Your task to perform on an android device: change timer sound Image 0: 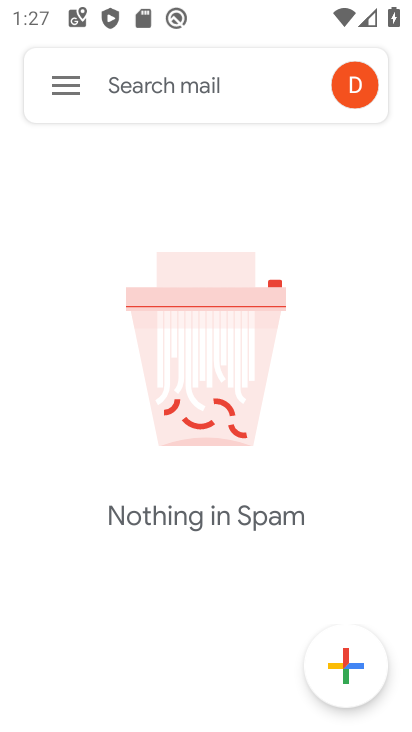
Step 0: press back button
Your task to perform on an android device: change timer sound Image 1: 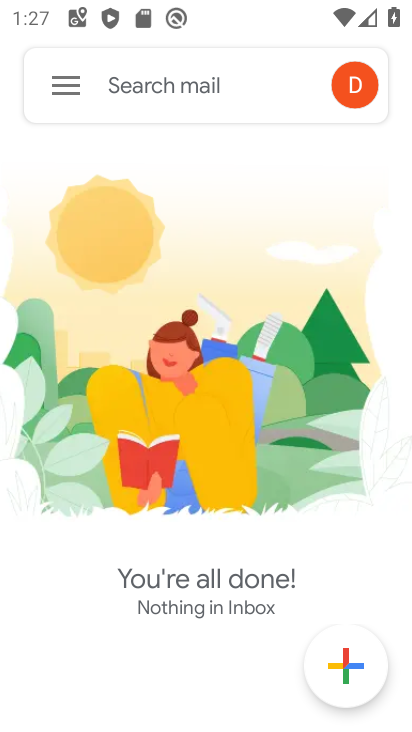
Step 1: drag from (378, 613) to (45, 102)
Your task to perform on an android device: change timer sound Image 2: 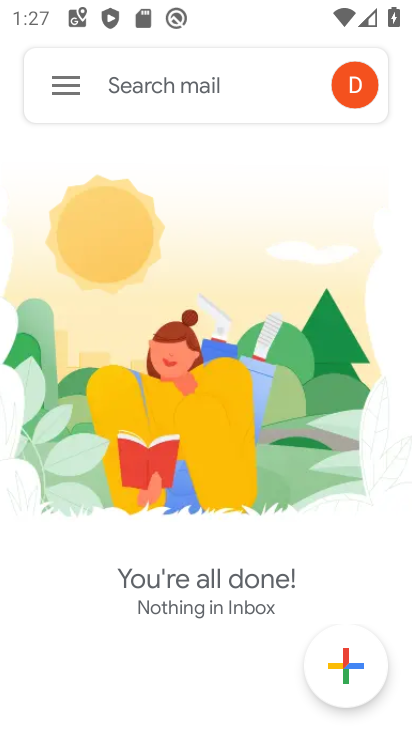
Step 2: click (61, 90)
Your task to perform on an android device: change timer sound Image 3: 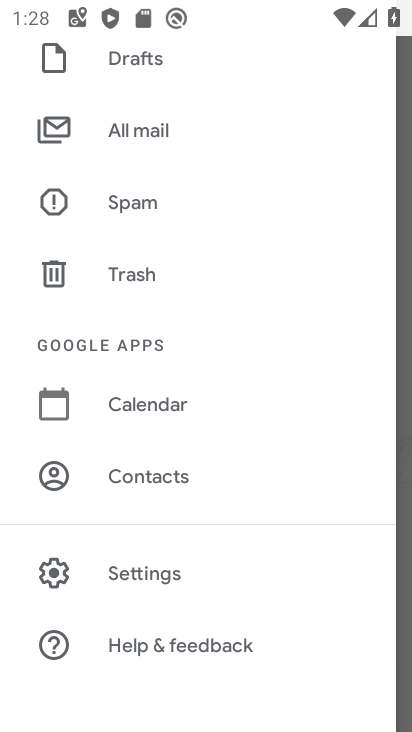
Step 3: press back button
Your task to perform on an android device: change timer sound Image 4: 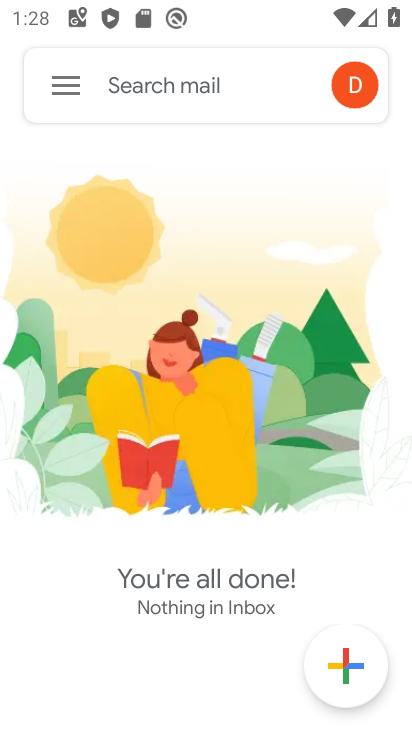
Step 4: press home button
Your task to perform on an android device: change timer sound Image 5: 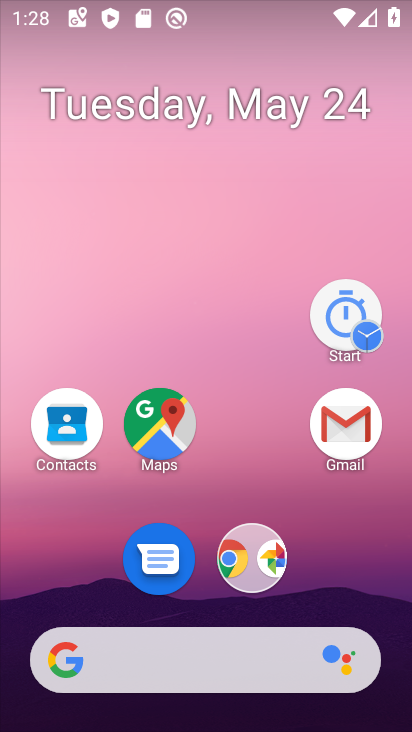
Step 5: drag from (277, 708) to (147, 109)
Your task to perform on an android device: change timer sound Image 6: 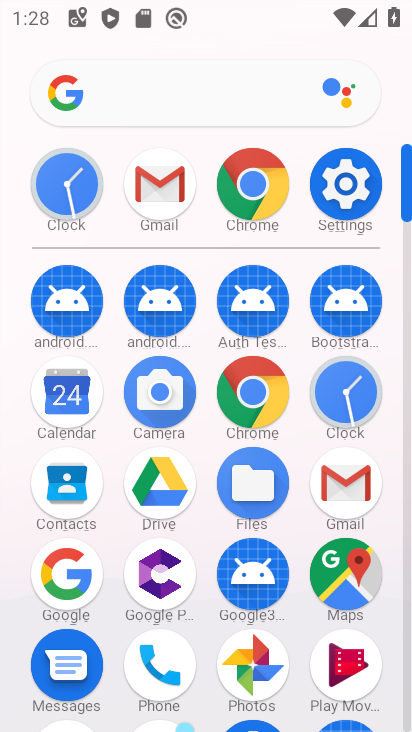
Step 6: click (354, 390)
Your task to perform on an android device: change timer sound Image 7: 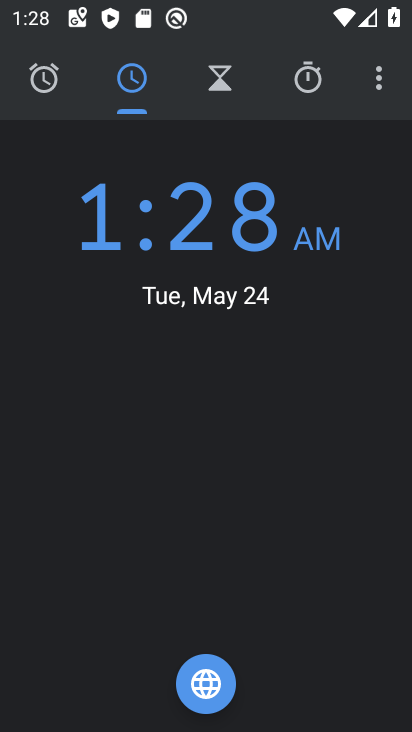
Step 7: click (379, 74)
Your task to perform on an android device: change timer sound Image 8: 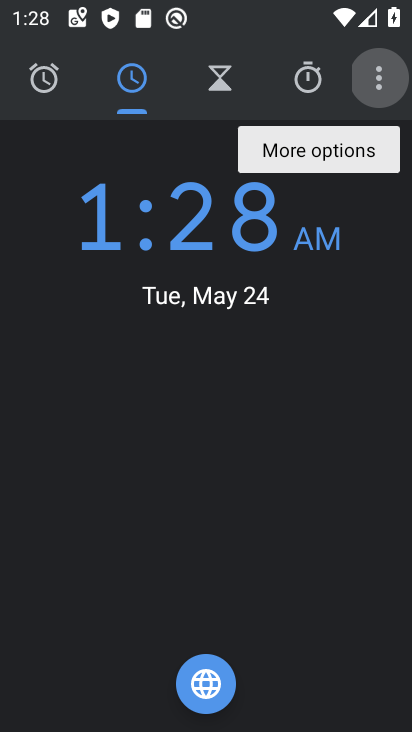
Step 8: click (375, 84)
Your task to perform on an android device: change timer sound Image 9: 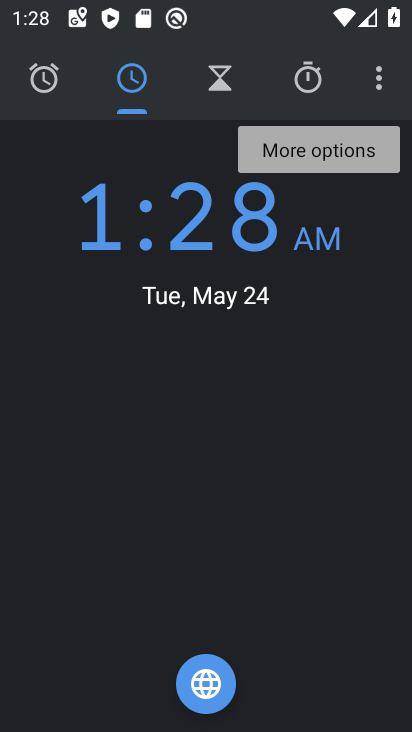
Step 9: click (376, 85)
Your task to perform on an android device: change timer sound Image 10: 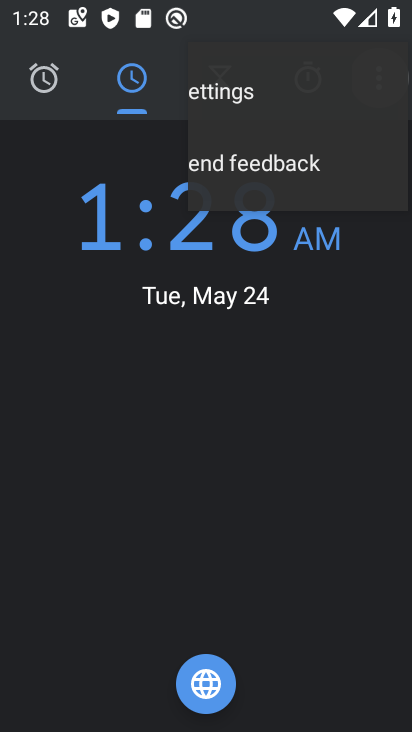
Step 10: click (376, 85)
Your task to perform on an android device: change timer sound Image 11: 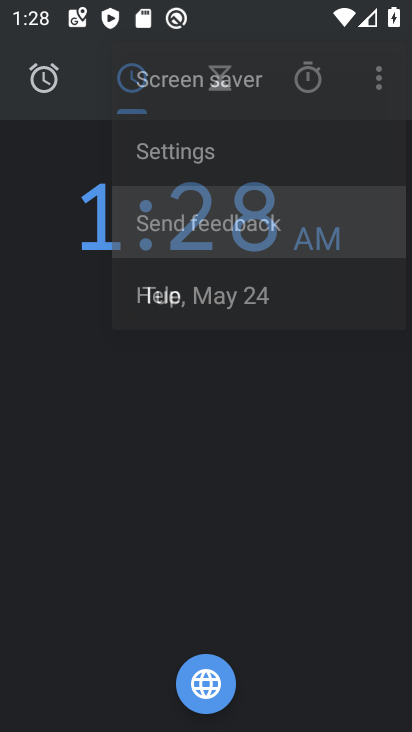
Step 11: click (376, 85)
Your task to perform on an android device: change timer sound Image 12: 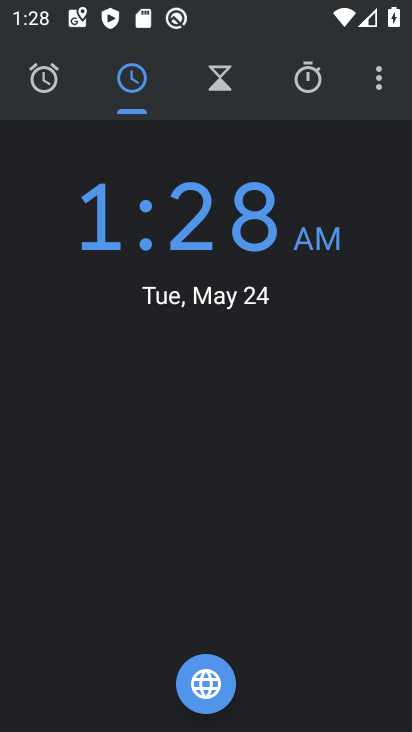
Step 12: click (377, 84)
Your task to perform on an android device: change timer sound Image 13: 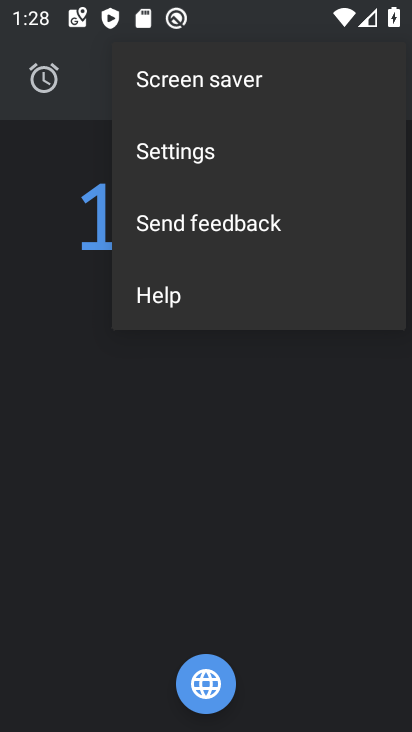
Step 13: click (181, 147)
Your task to perform on an android device: change timer sound Image 14: 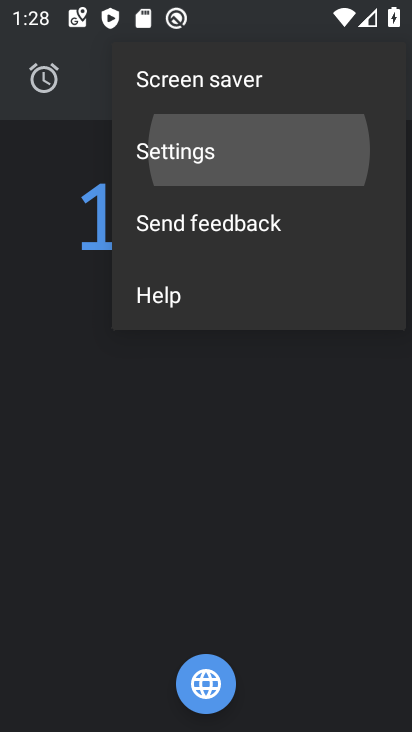
Step 14: click (186, 144)
Your task to perform on an android device: change timer sound Image 15: 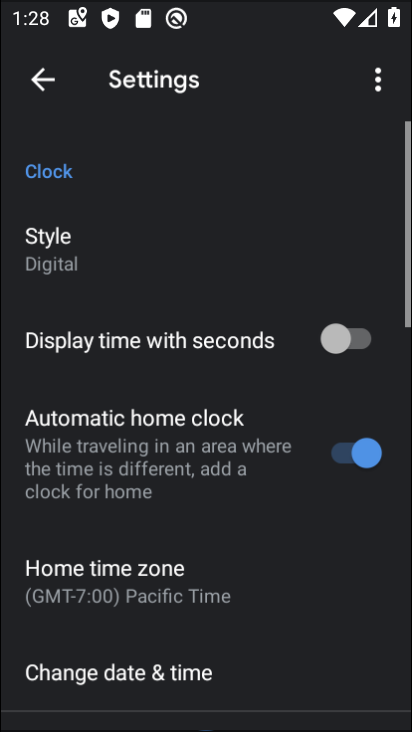
Step 15: click (188, 143)
Your task to perform on an android device: change timer sound Image 16: 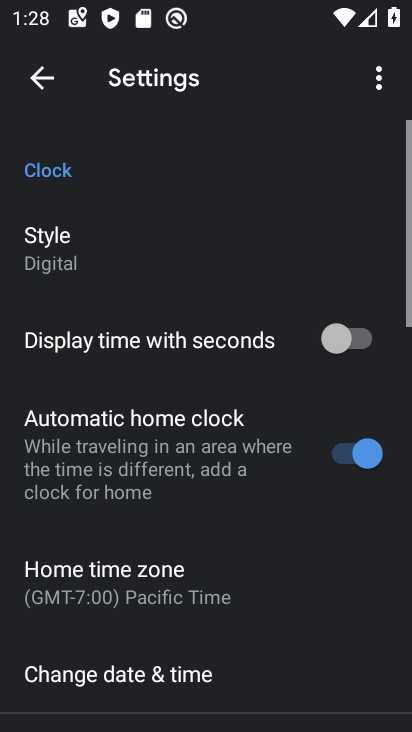
Step 16: click (190, 141)
Your task to perform on an android device: change timer sound Image 17: 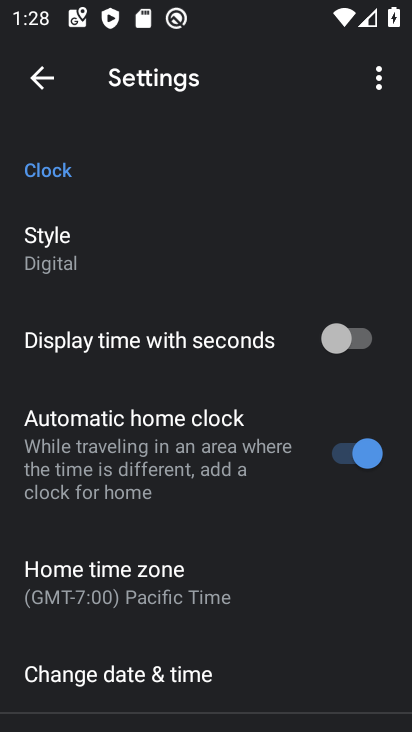
Step 17: drag from (216, 551) to (258, 190)
Your task to perform on an android device: change timer sound Image 18: 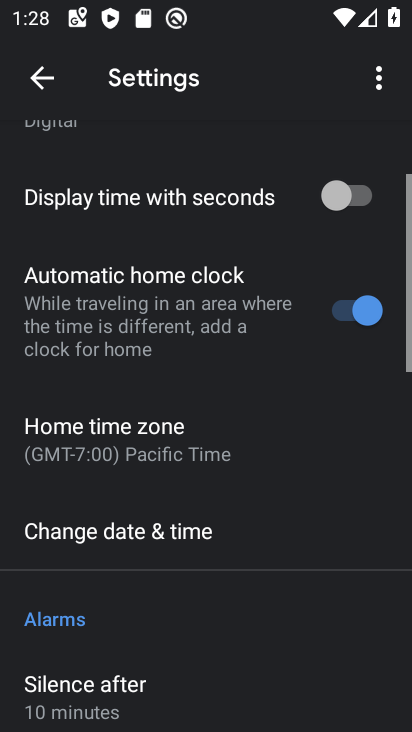
Step 18: drag from (285, 485) to (268, 120)
Your task to perform on an android device: change timer sound Image 19: 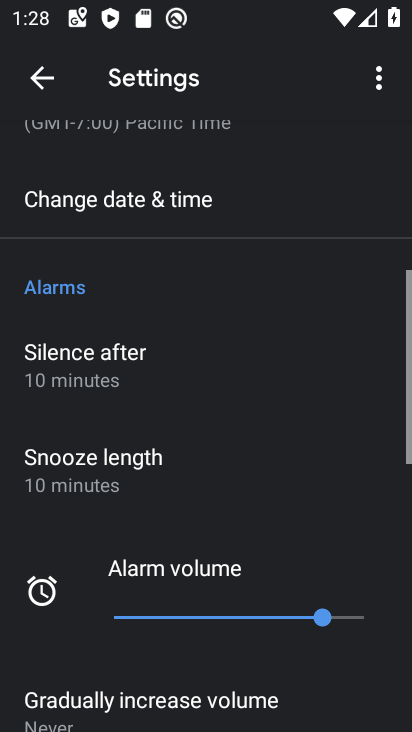
Step 19: drag from (316, 540) to (282, 125)
Your task to perform on an android device: change timer sound Image 20: 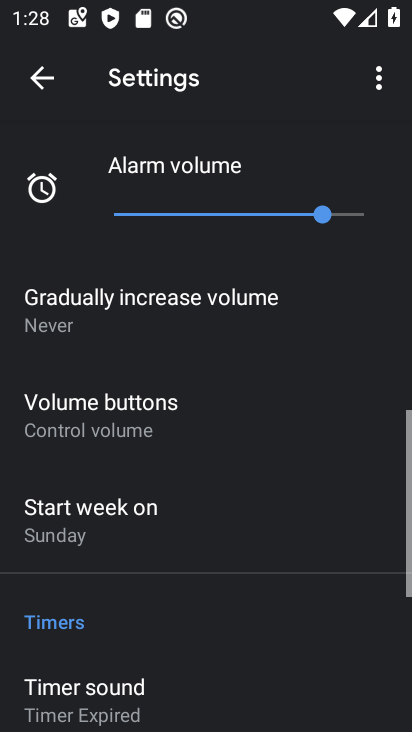
Step 20: drag from (237, 559) to (154, 210)
Your task to perform on an android device: change timer sound Image 21: 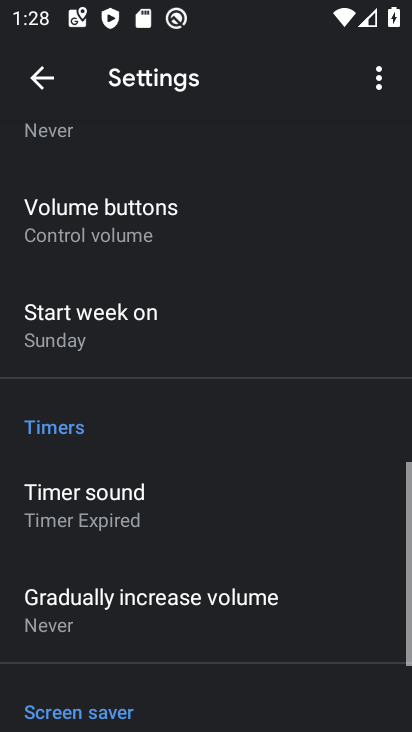
Step 21: drag from (171, 574) to (127, 209)
Your task to perform on an android device: change timer sound Image 22: 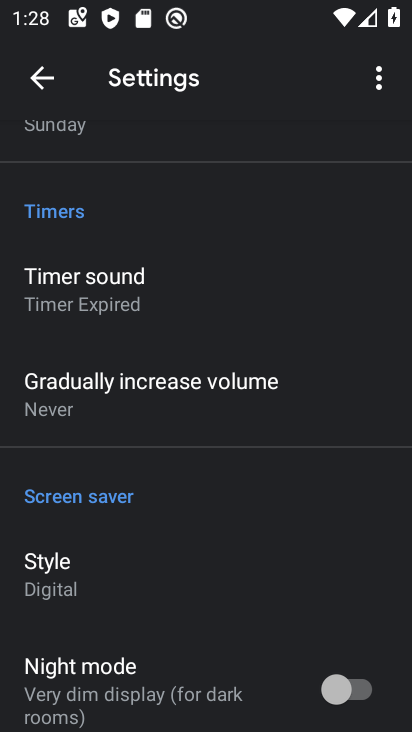
Step 22: drag from (163, 451) to (184, 182)
Your task to perform on an android device: change timer sound Image 23: 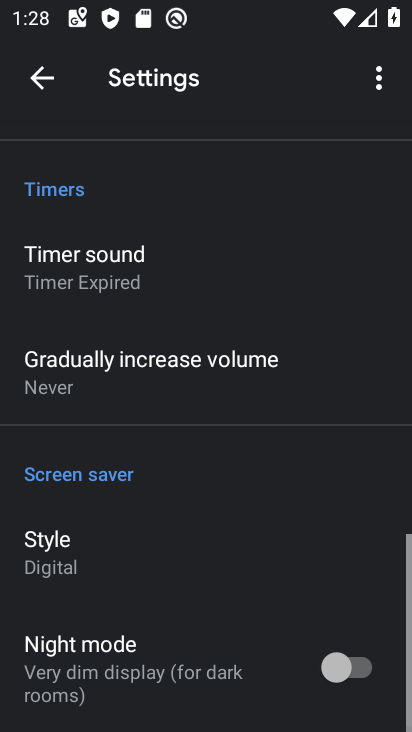
Step 23: drag from (230, 512) to (258, 62)
Your task to perform on an android device: change timer sound Image 24: 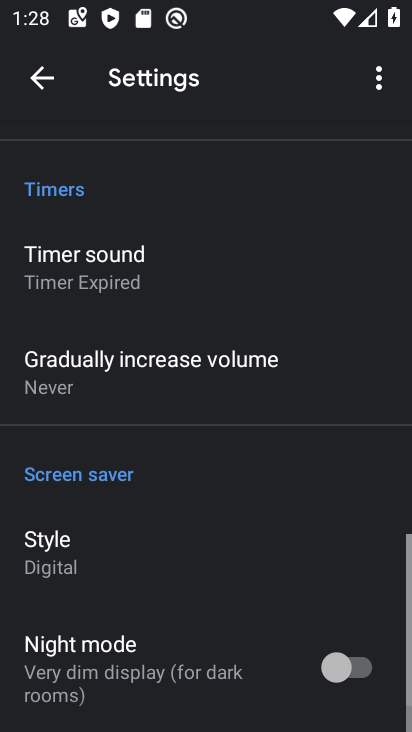
Step 24: drag from (254, 567) to (189, 137)
Your task to perform on an android device: change timer sound Image 25: 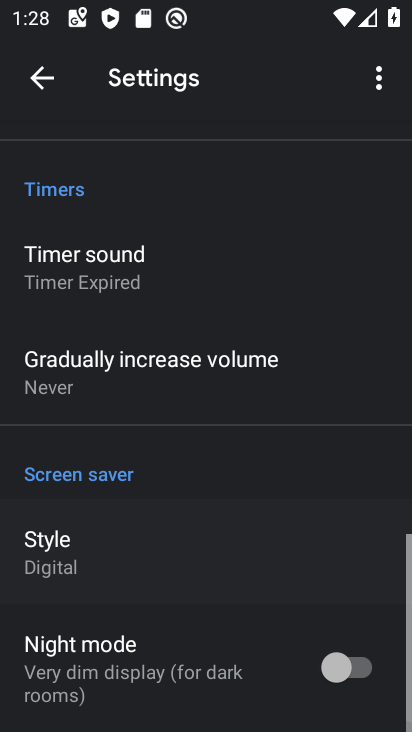
Step 25: drag from (199, 525) to (113, 86)
Your task to perform on an android device: change timer sound Image 26: 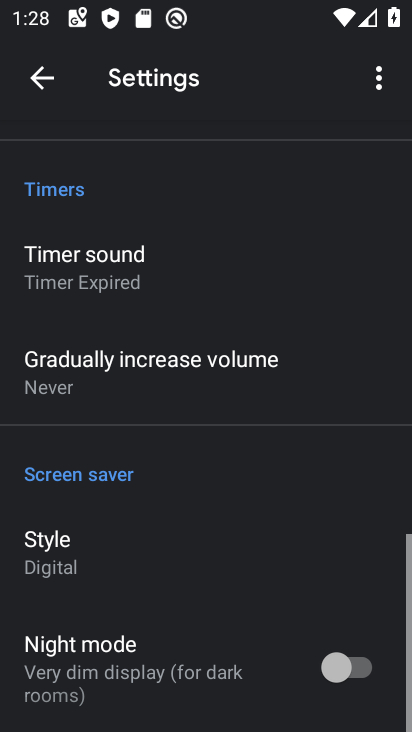
Step 26: drag from (139, 598) to (117, 94)
Your task to perform on an android device: change timer sound Image 27: 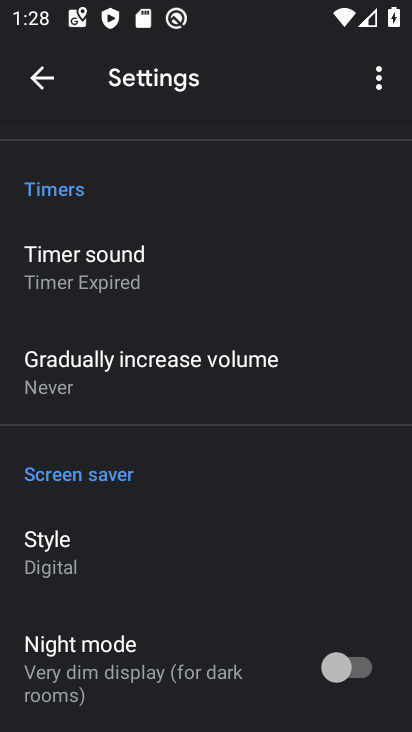
Step 27: click (82, 269)
Your task to perform on an android device: change timer sound Image 28: 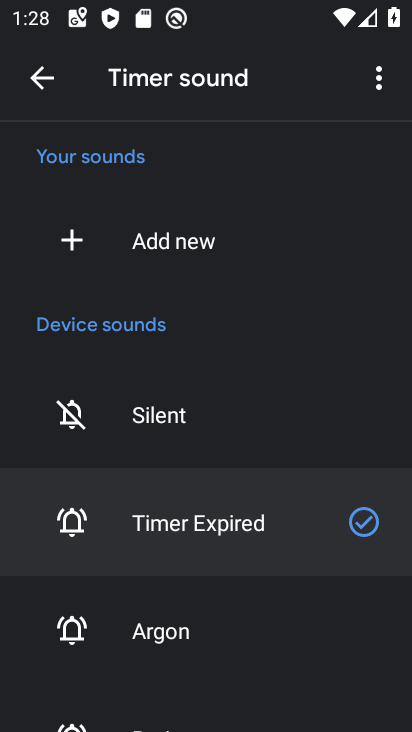
Step 28: click (70, 627)
Your task to perform on an android device: change timer sound Image 29: 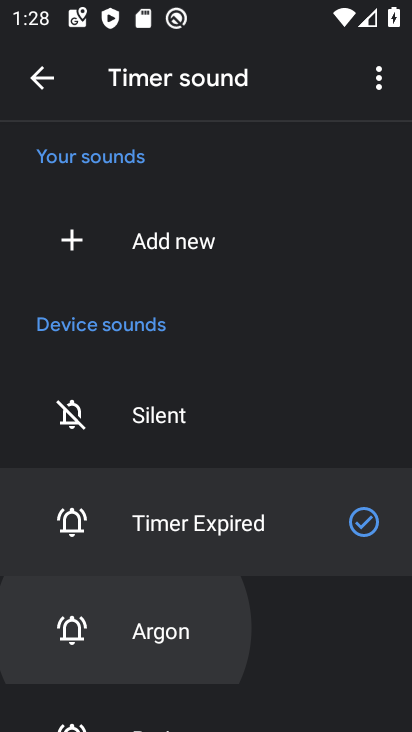
Step 29: click (70, 627)
Your task to perform on an android device: change timer sound Image 30: 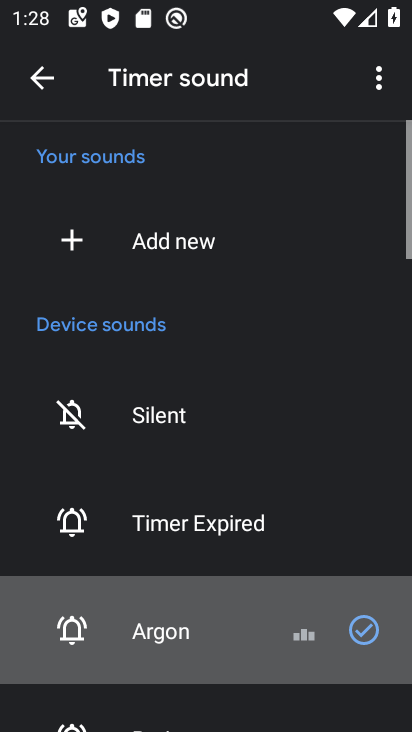
Step 30: click (70, 627)
Your task to perform on an android device: change timer sound Image 31: 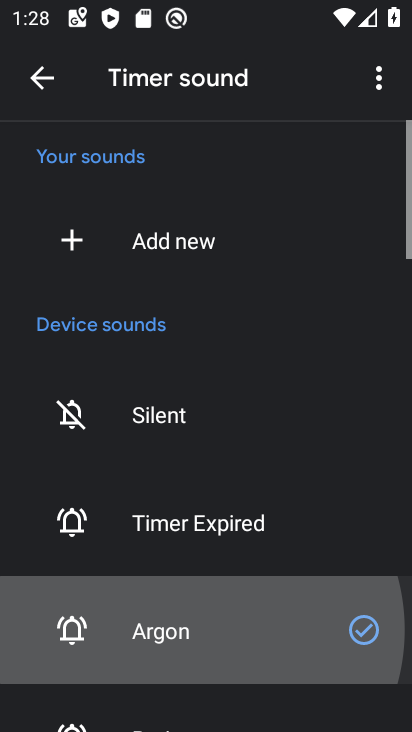
Step 31: click (74, 627)
Your task to perform on an android device: change timer sound Image 32: 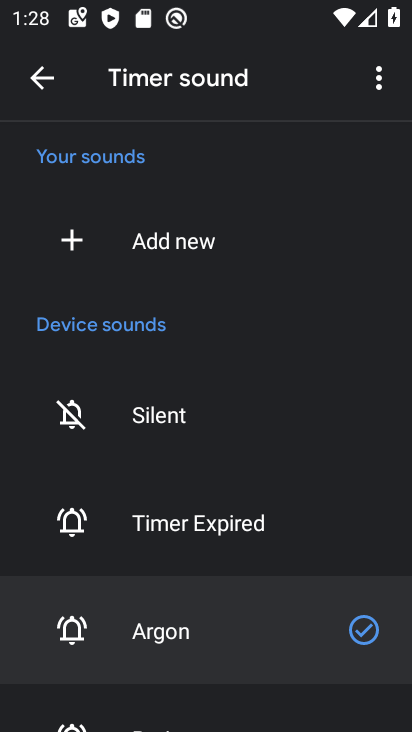
Step 32: task complete